Your task to perform on an android device: Go to ESPN.com Image 0: 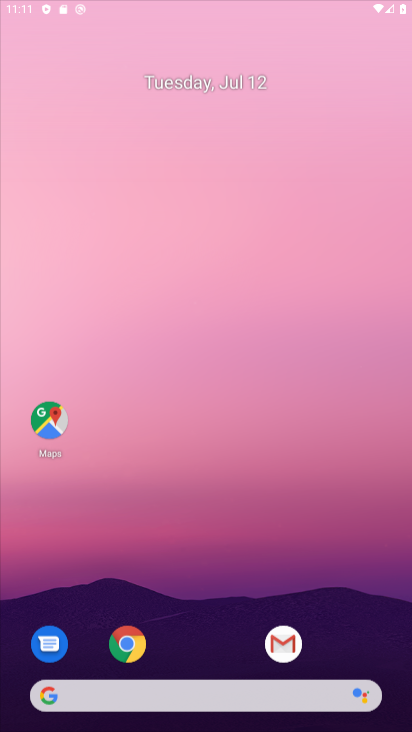
Step 0: click (41, 413)
Your task to perform on an android device: Go to ESPN.com Image 1: 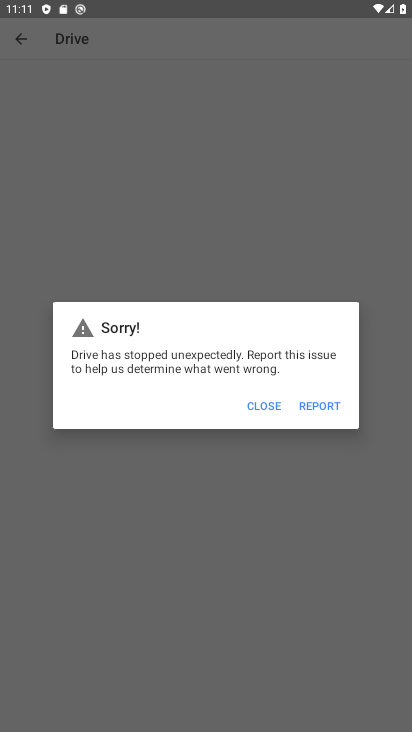
Step 1: press home button
Your task to perform on an android device: Go to ESPN.com Image 2: 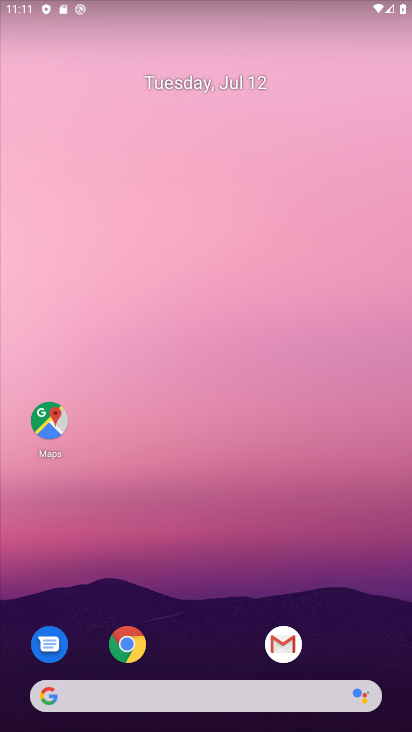
Step 2: click (139, 648)
Your task to perform on an android device: Go to ESPN.com Image 3: 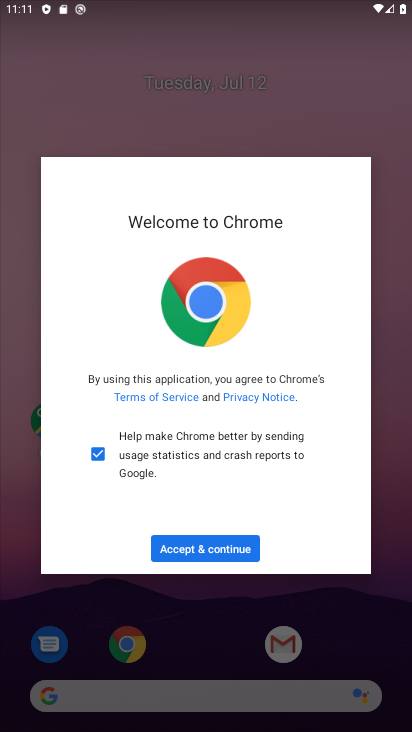
Step 3: click (190, 551)
Your task to perform on an android device: Go to ESPN.com Image 4: 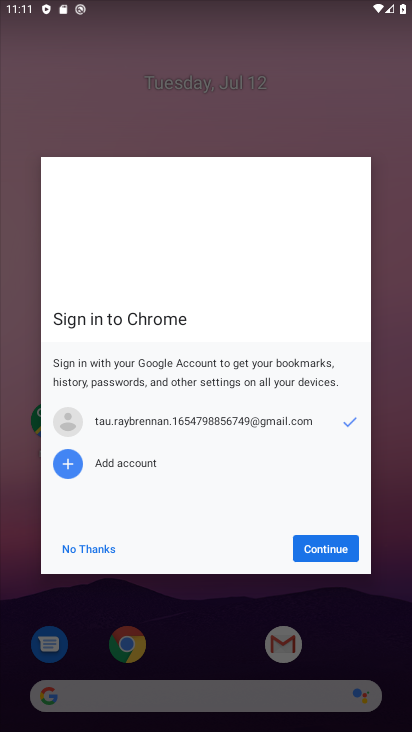
Step 4: click (304, 546)
Your task to perform on an android device: Go to ESPN.com Image 5: 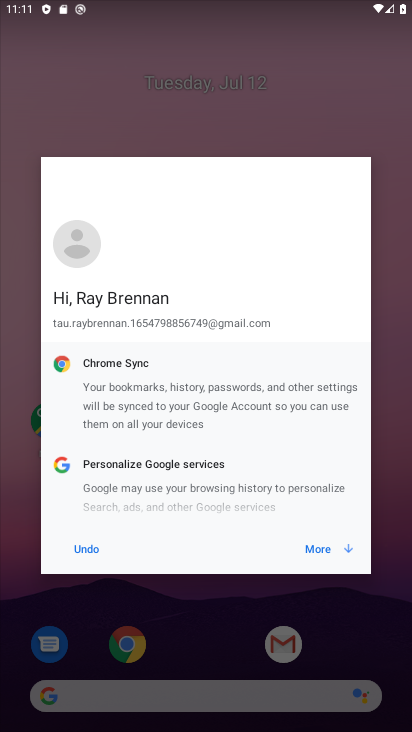
Step 5: click (341, 550)
Your task to perform on an android device: Go to ESPN.com Image 6: 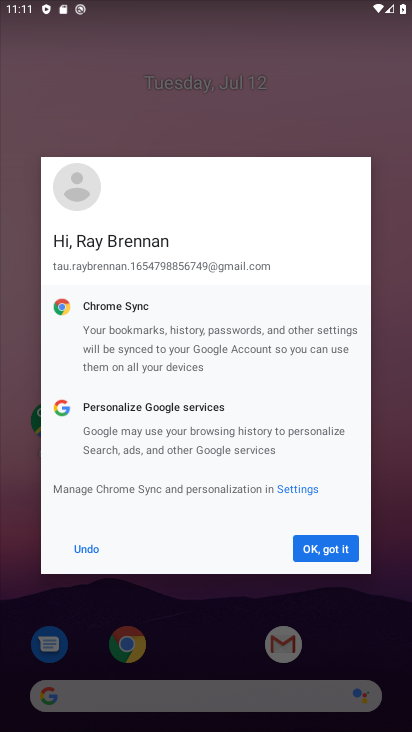
Step 6: click (336, 546)
Your task to perform on an android device: Go to ESPN.com Image 7: 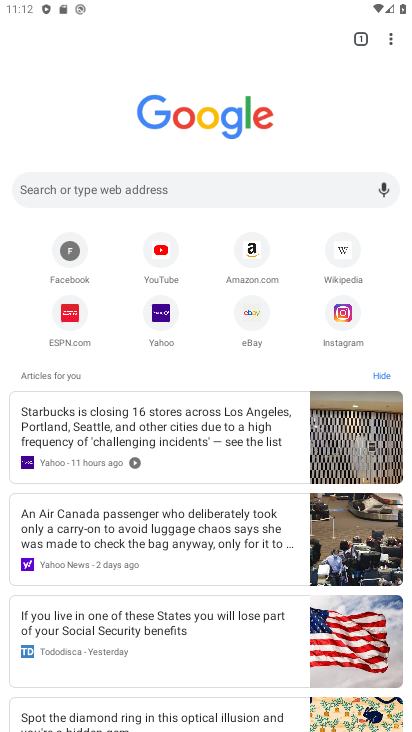
Step 7: click (79, 316)
Your task to perform on an android device: Go to ESPN.com Image 8: 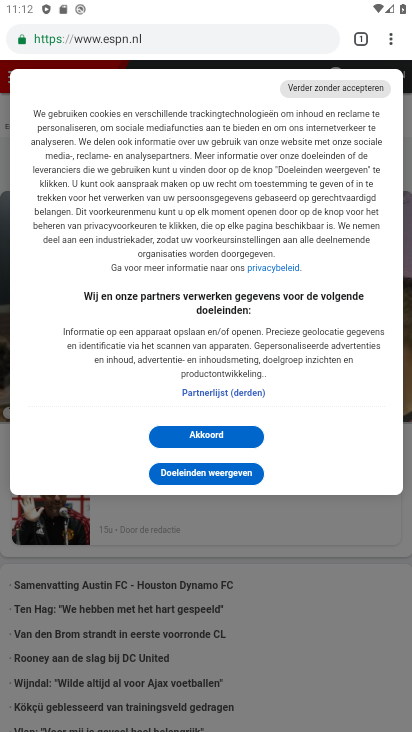
Step 8: click (198, 437)
Your task to perform on an android device: Go to ESPN.com Image 9: 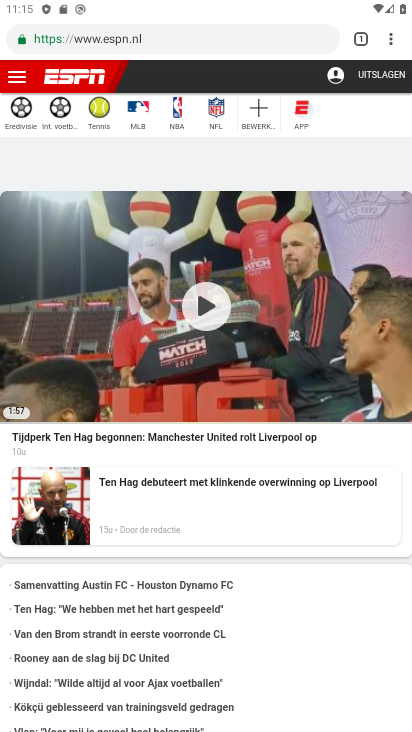
Step 9: task complete